Your task to perform on an android device: find which apps use the phone's location Image 0: 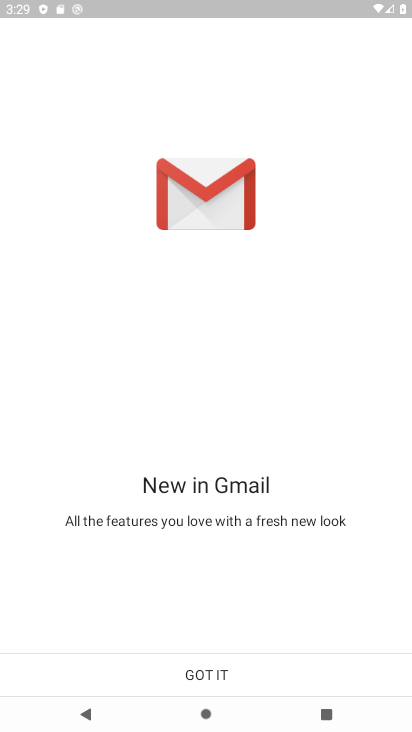
Step 0: press home button
Your task to perform on an android device: find which apps use the phone's location Image 1: 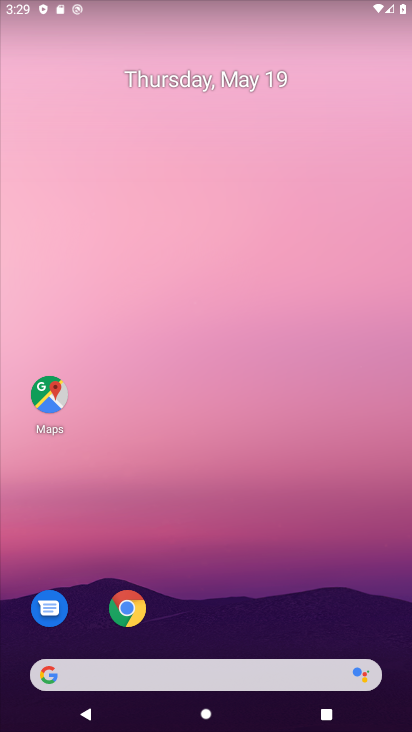
Step 1: drag from (225, 701) to (217, 227)
Your task to perform on an android device: find which apps use the phone's location Image 2: 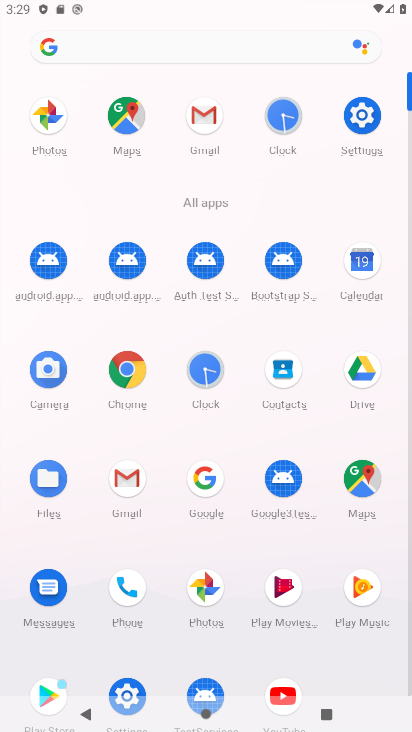
Step 2: click (359, 131)
Your task to perform on an android device: find which apps use the phone's location Image 3: 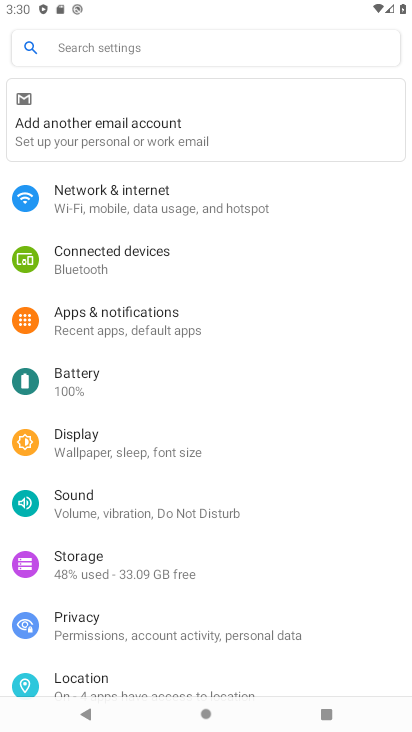
Step 3: click (105, 679)
Your task to perform on an android device: find which apps use the phone's location Image 4: 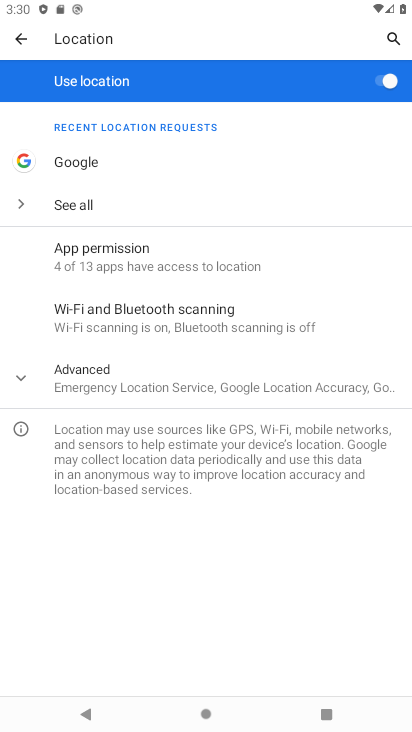
Step 4: click (96, 256)
Your task to perform on an android device: find which apps use the phone's location Image 5: 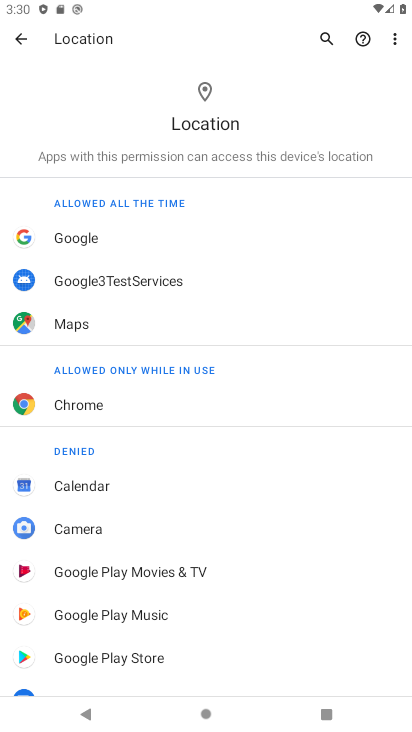
Step 5: task complete